Your task to perform on an android device: manage bookmarks in the chrome app Image 0: 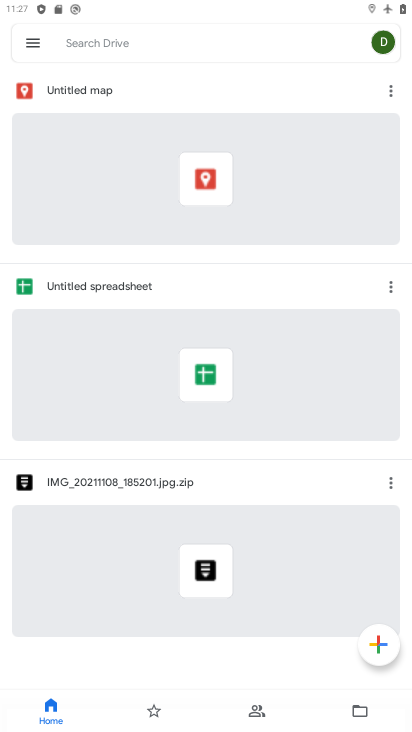
Step 0: press home button
Your task to perform on an android device: manage bookmarks in the chrome app Image 1: 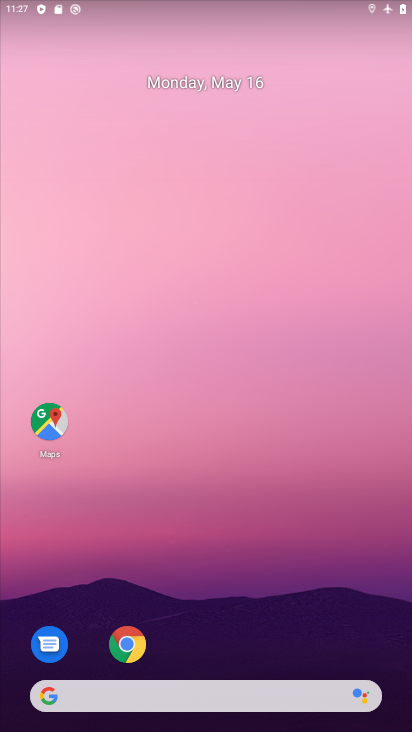
Step 1: drag from (232, 632) to (282, 213)
Your task to perform on an android device: manage bookmarks in the chrome app Image 2: 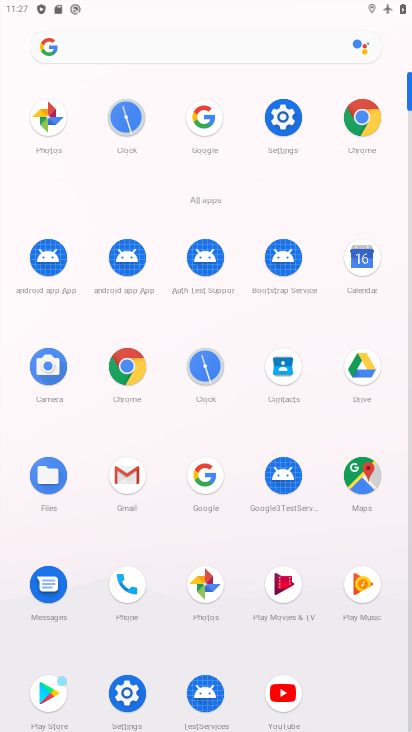
Step 2: click (368, 113)
Your task to perform on an android device: manage bookmarks in the chrome app Image 3: 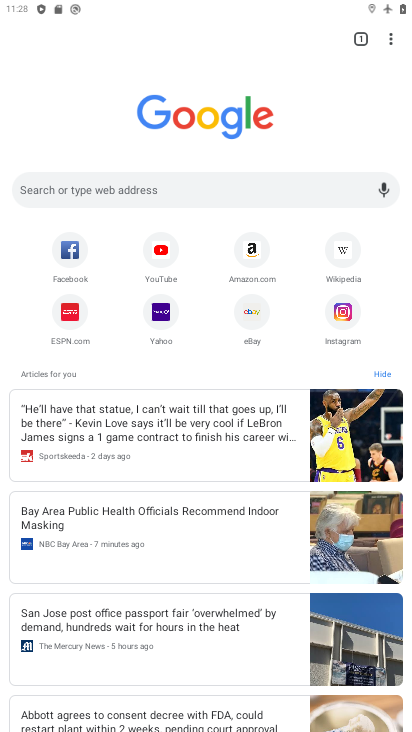
Step 3: click (383, 43)
Your task to perform on an android device: manage bookmarks in the chrome app Image 4: 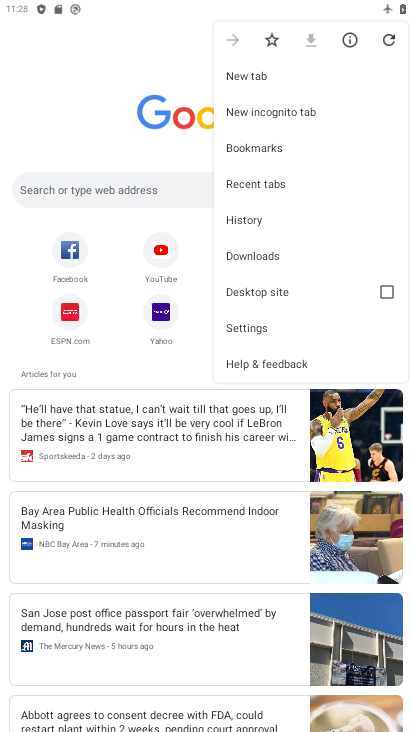
Step 4: click (281, 148)
Your task to perform on an android device: manage bookmarks in the chrome app Image 5: 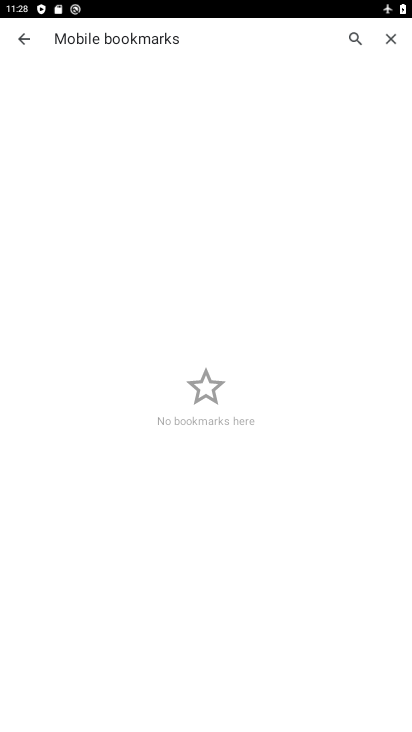
Step 5: task complete